Your task to perform on an android device: toggle show notifications on the lock screen Image 0: 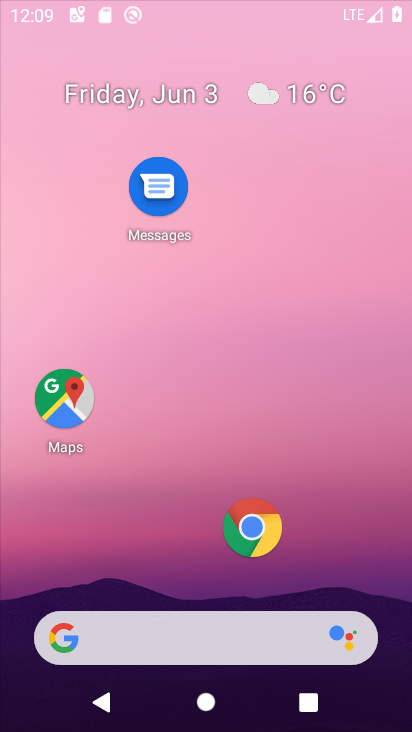
Step 0: press home button
Your task to perform on an android device: toggle show notifications on the lock screen Image 1: 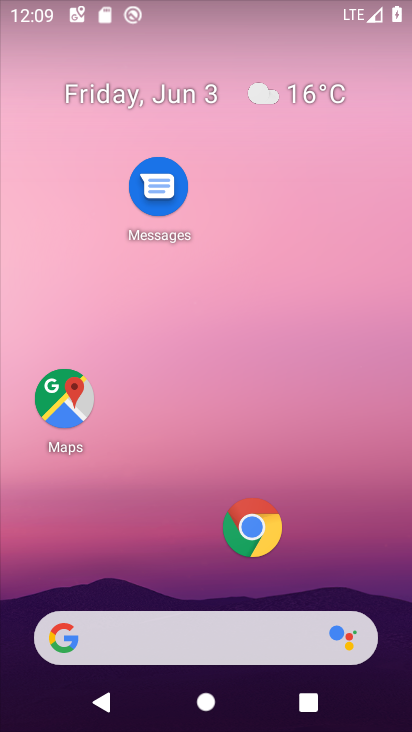
Step 1: drag from (198, 581) to (223, 118)
Your task to perform on an android device: toggle show notifications on the lock screen Image 2: 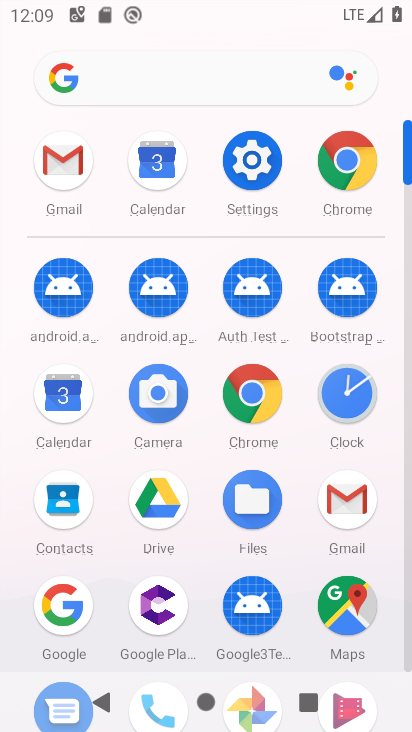
Step 2: click (249, 152)
Your task to perform on an android device: toggle show notifications on the lock screen Image 3: 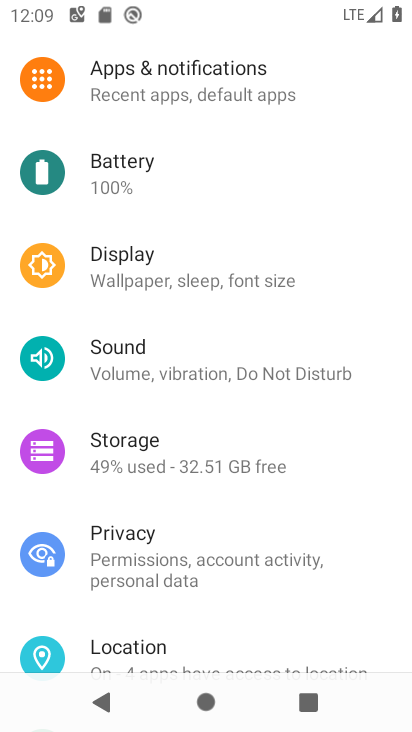
Step 3: click (172, 81)
Your task to perform on an android device: toggle show notifications on the lock screen Image 4: 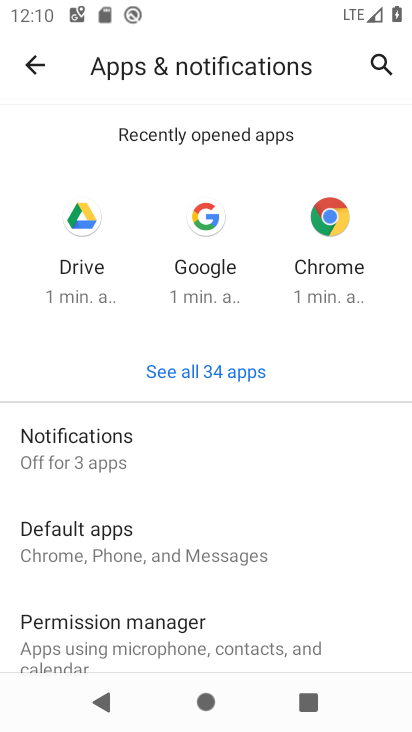
Step 4: click (149, 446)
Your task to perform on an android device: toggle show notifications on the lock screen Image 5: 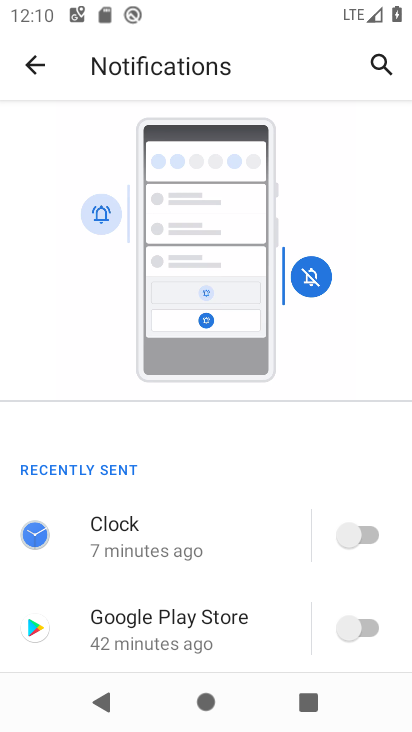
Step 5: drag from (248, 640) to (250, 119)
Your task to perform on an android device: toggle show notifications on the lock screen Image 6: 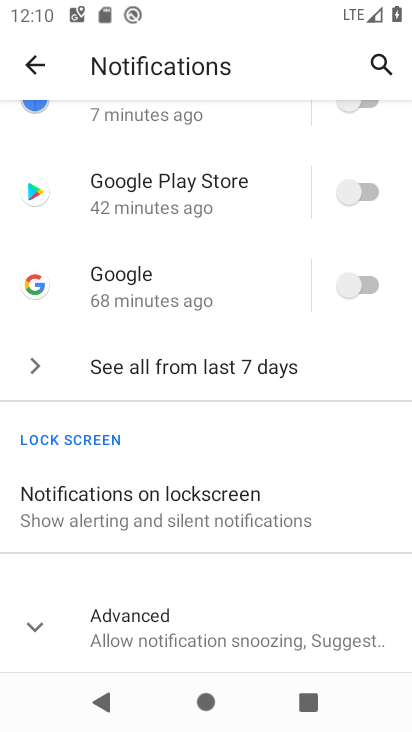
Step 6: click (206, 510)
Your task to perform on an android device: toggle show notifications on the lock screen Image 7: 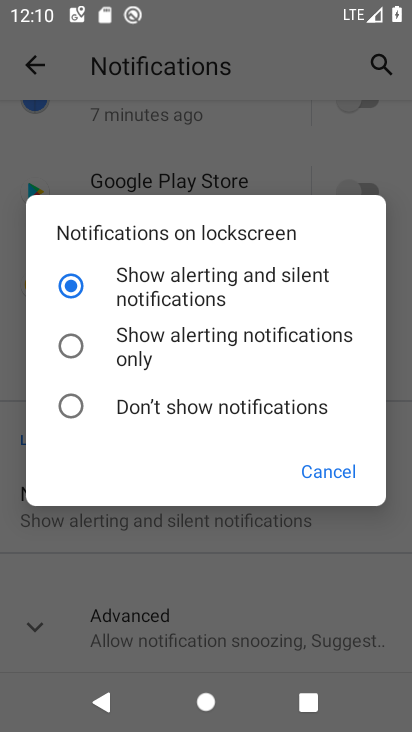
Step 7: click (73, 342)
Your task to perform on an android device: toggle show notifications on the lock screen Image 8: 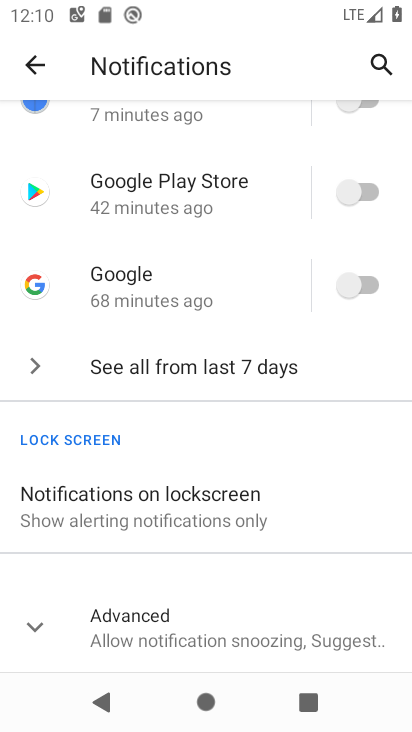
Step 8: task complete